Your task to perform on an android device: Go to ESPN.com Image 0: 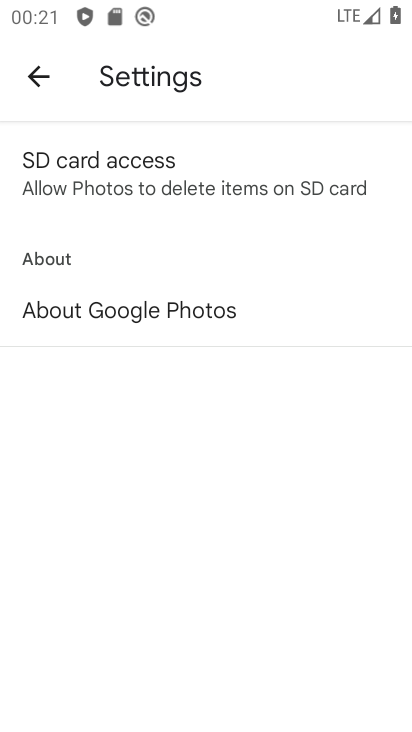
Step 0: press home button
Your task to perform on an android device: Go to ESPN.com Image 1: 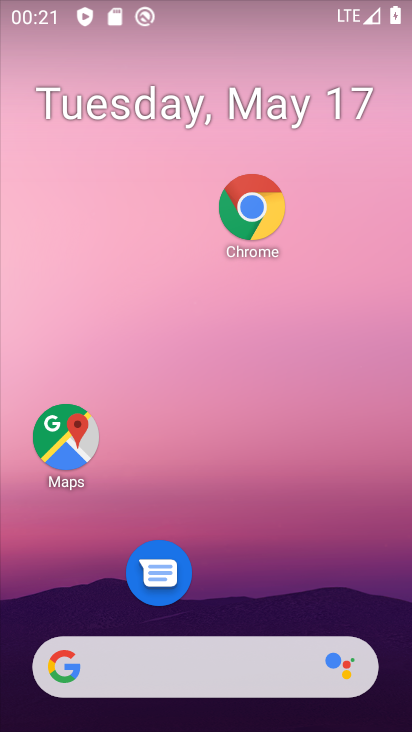
Step 1: drag from (261, 706) to (301, 28)
Your task to perform on an android device: Go to ESPN.com Image 2: 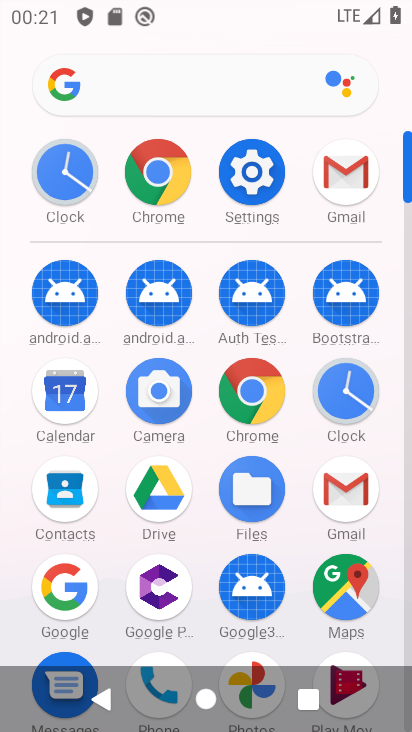
Step 2: click (254, 402)
Your task to perform on an android device: Go to ESPN.com Image 3: 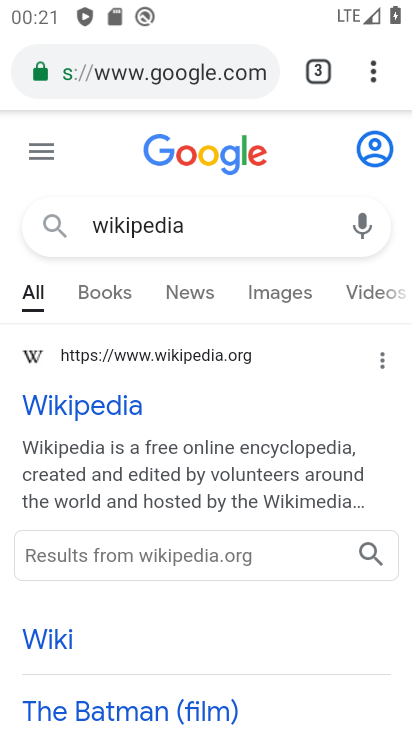
Step 3: click (222, 88)
Your task to perform on an android device: Go to ESPN.com Image 4: 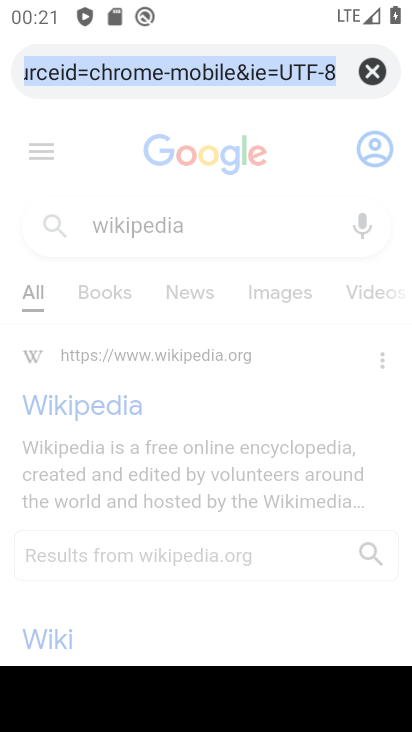
Step 4: click (369, 63)
Your task to perform on an android device: Go to ESPN.com Image 5: 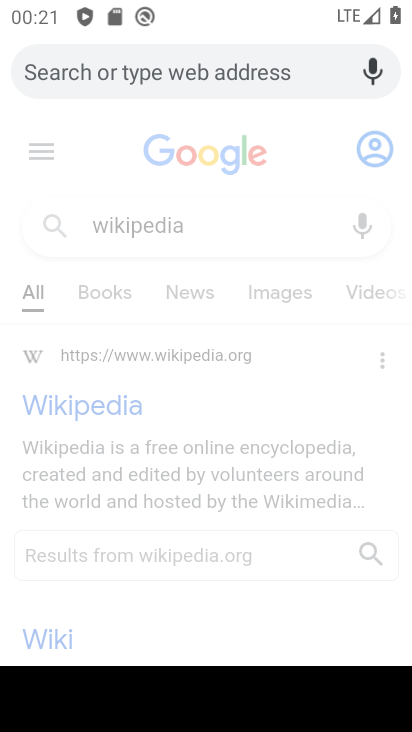
Step 5: type "espn.com"
Your task to perform on an android device: Go to ESPN.com Image 6: 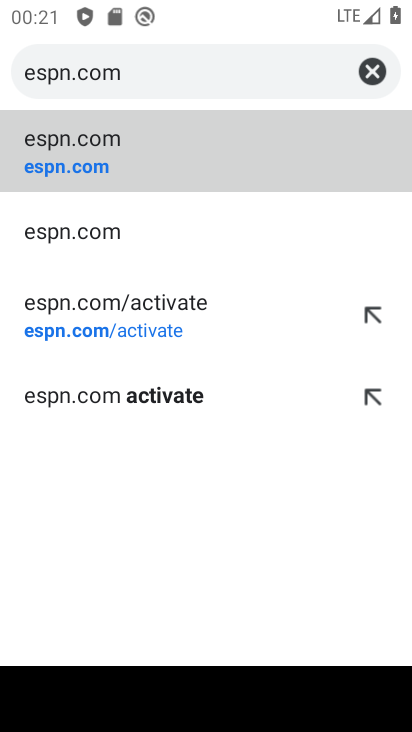
Step 6: click (258, 158)
Your task to perform on an android device: Go to ESPN.com Image 7: 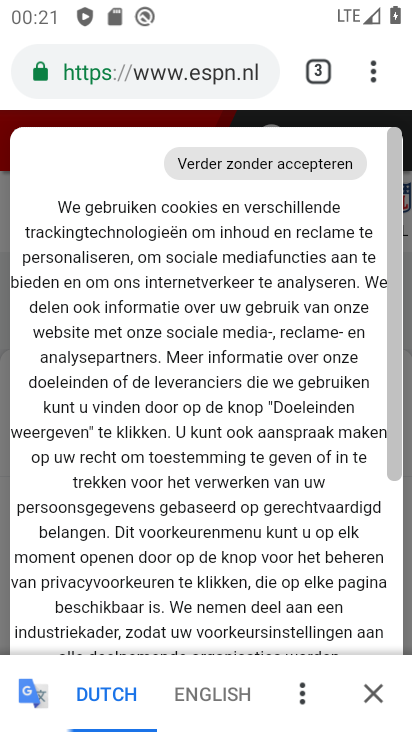
Step 7: task complete